Your task to perform on an android device: stop showing notifications on the lock screen Image 0: 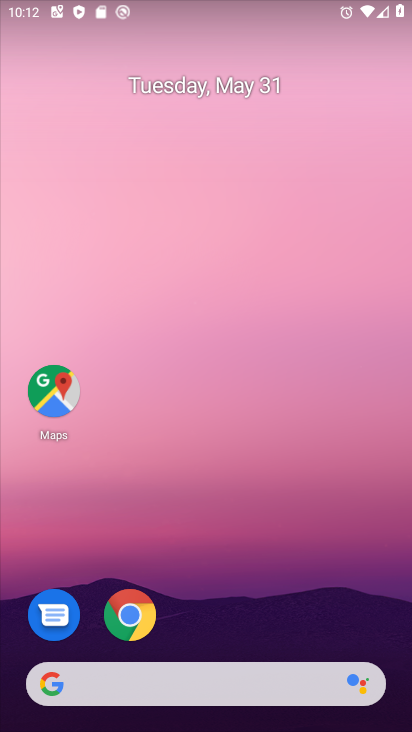
Step 0: drag from (293, 573) to (243, 55)
Your task to perform on an android device: stop showing notifications on the lock screen Image 1: 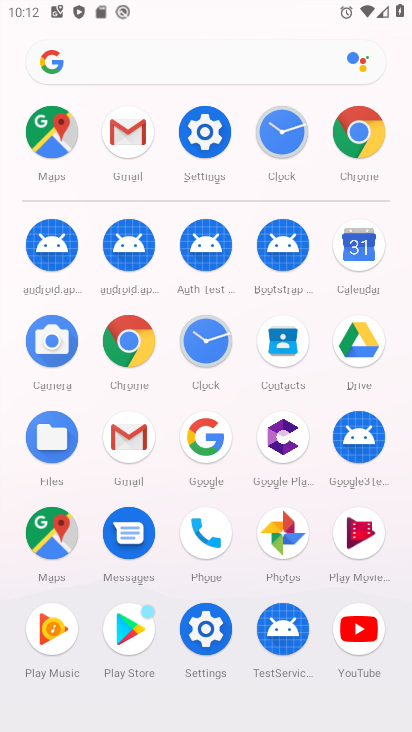
Step 1: click (215, 123)
Your task to perform on an android device: stop showing notifications on the lock screen Image 2: 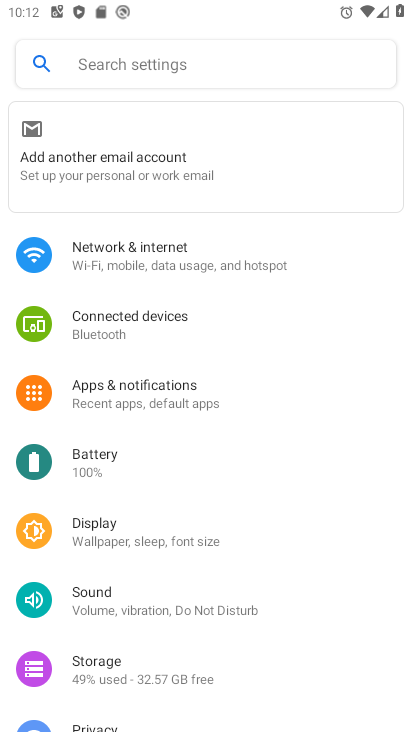
Step 2: click (152, 401)
Your task to perform on an android device: stop showing notifications on the lock screen Image 3: 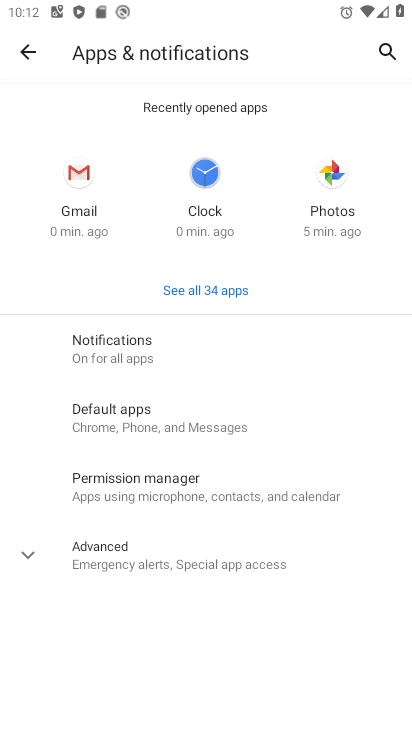
Step 3: click (122, 357)
Your task to perform on an android device: stop showing notifications on the lock screen Image 4: 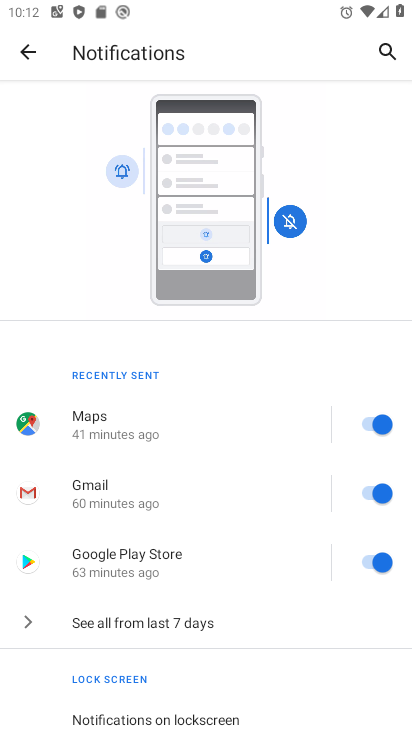
Step 4: drag from (176, 579) to (248, 136)
Your task to perform on an android device: stop showing notifications on the lock screen Image 5: 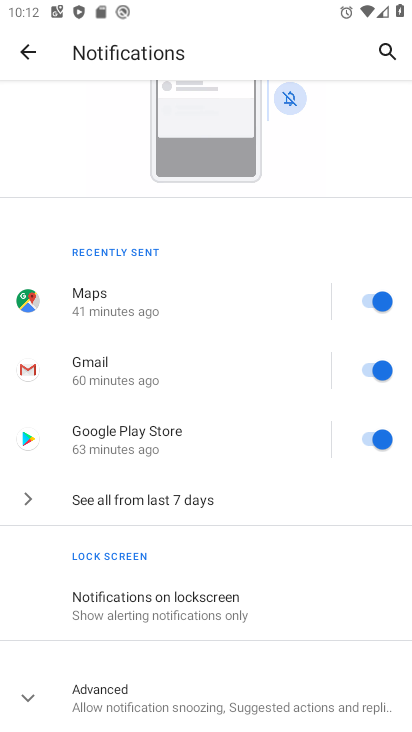
Step 5: click (195, 615)
Your task to perform on an android device: stop showing notifications on the lock screen Image 6: 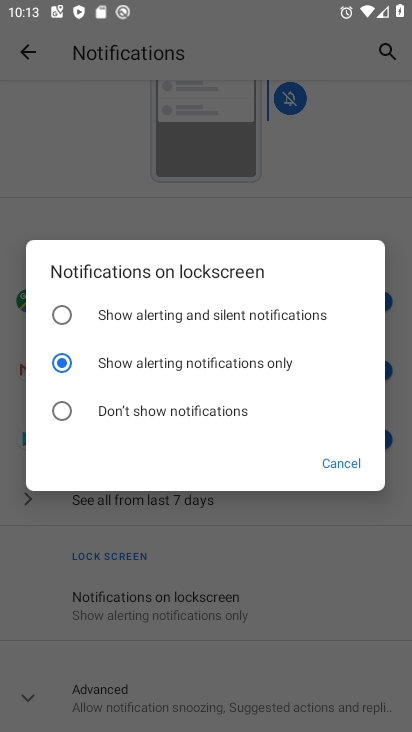
Step 6: click (65, 417)
Your task to perform on an android device: stop showing notifications on the lock screen Image 7: 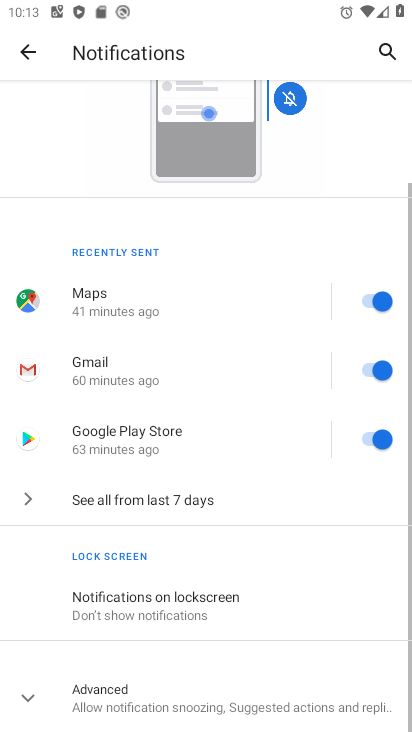
Step 7: task complete